Your task to perform on an android device: set an alarm Image 0: 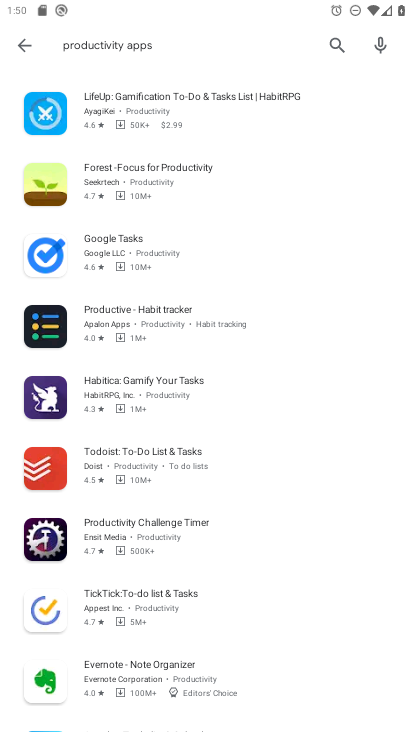
Step 0: press home button
Your task to perform on an android device: set an alarm Image 1: 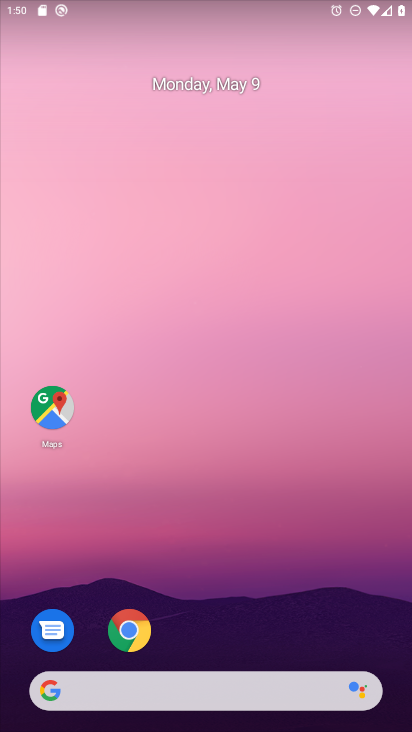
Step 1: drag from (231, 713) to (389, 313)
Your task to perform on an android device: set an alarm Image 2: 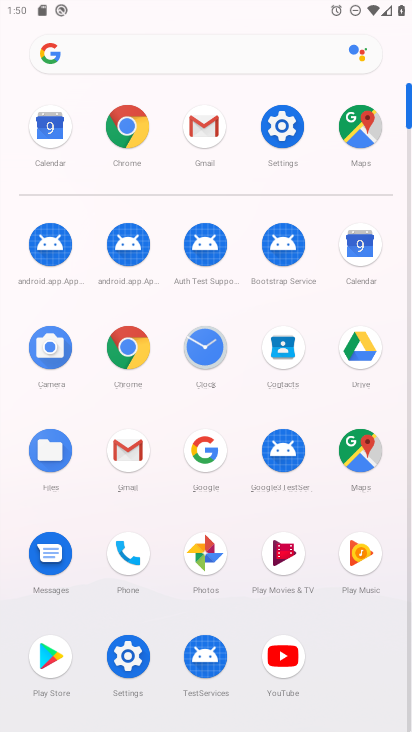
Step 2: click (206, 339)
Your task to perform on an android device: set an alarm Image 3: 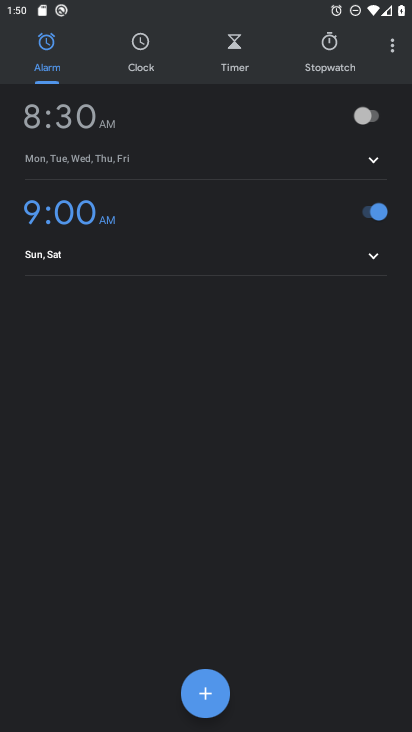
Step 3: click (359, 131)
Your task to perform on an android device: set an alarm Image 4: 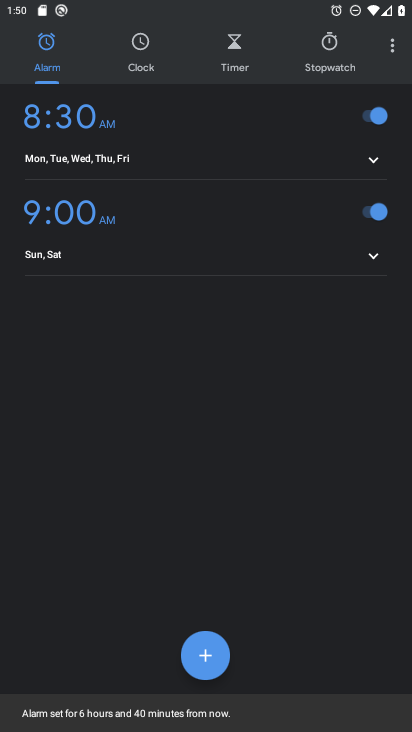
Step 4: task complete